Your task to perform on an android device: show emergency info Image 0: 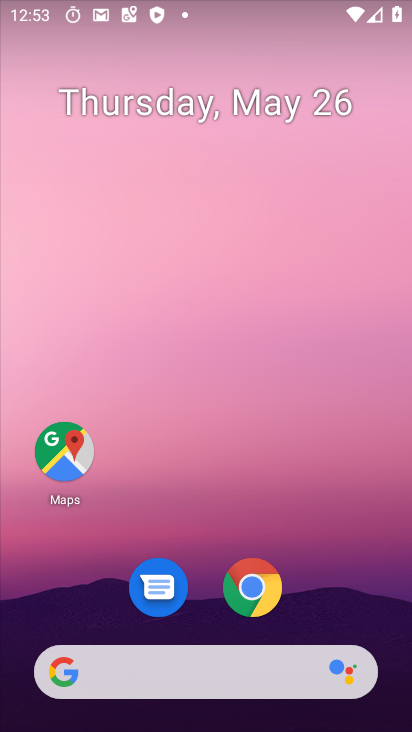
Step 0: drag from (273, 672) to (221, 188)
Your task to perform on an android device: show emergency info Image 1: 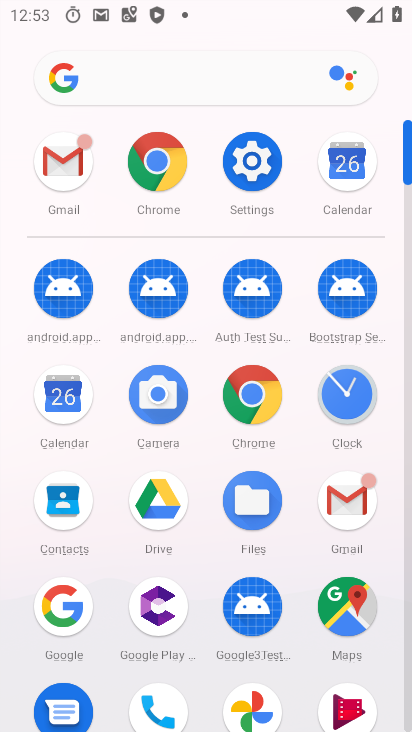
Step 1: click (249, 162)
Your task to perform on an android device: show emergency info Image 2: 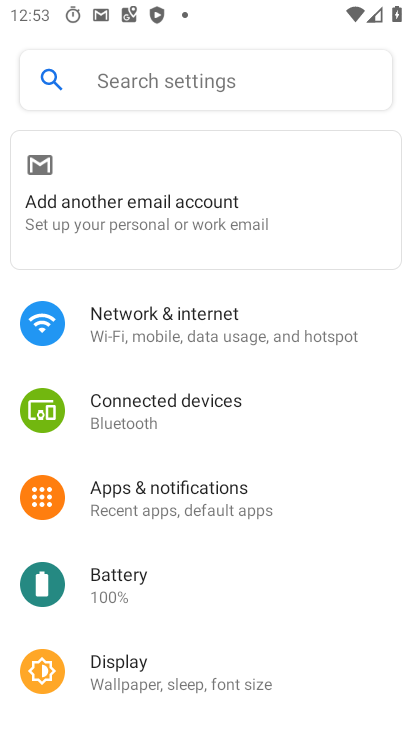
Step 2: click (182, 81)
Your task to perform on an android device: show emergency info Image 3: 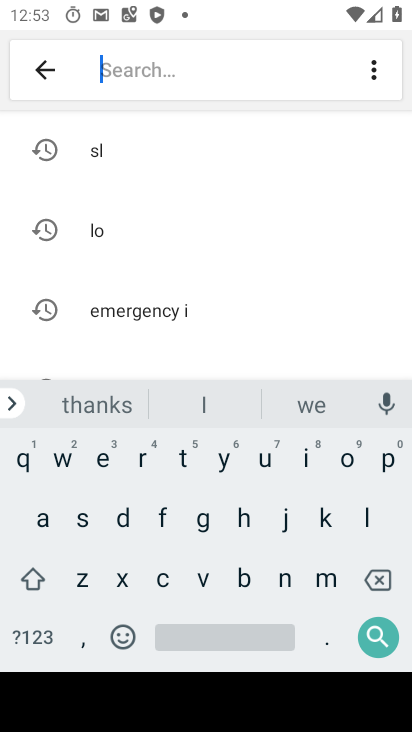
Step 3: click (104, 462)
Your task to perform on an android device: show emergency info Image 4: 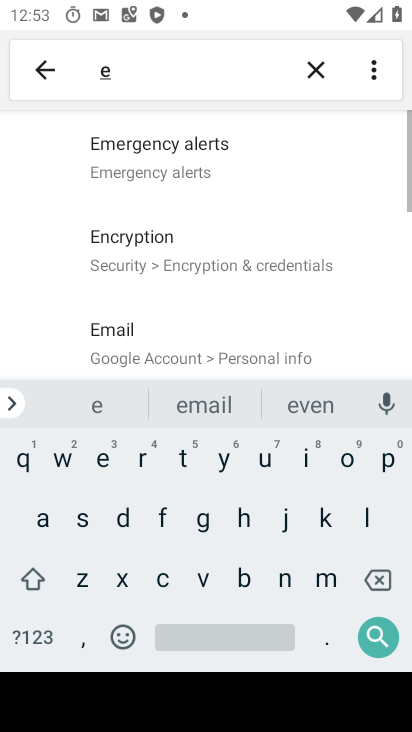
Step 4: click (319, 575)
Your task to perform on an android device: show emergency info Image 5: 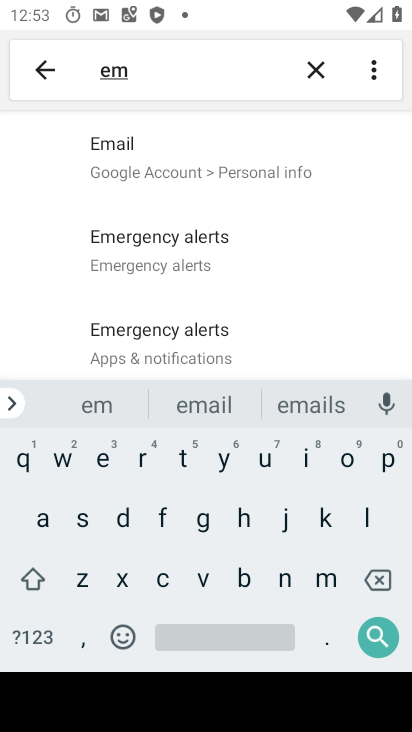
Step 5: click (98, 462)
Your task to perform on an android device: show emergency info Image 6: 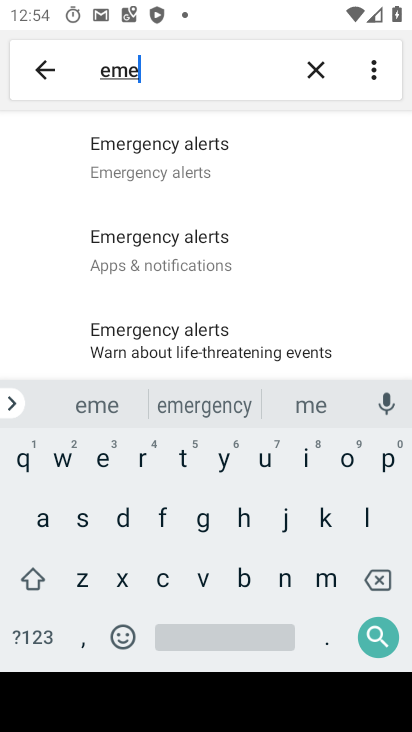
Step 6: click (177, 403)
Your task to perform on an android device: show emergency info Image 7: 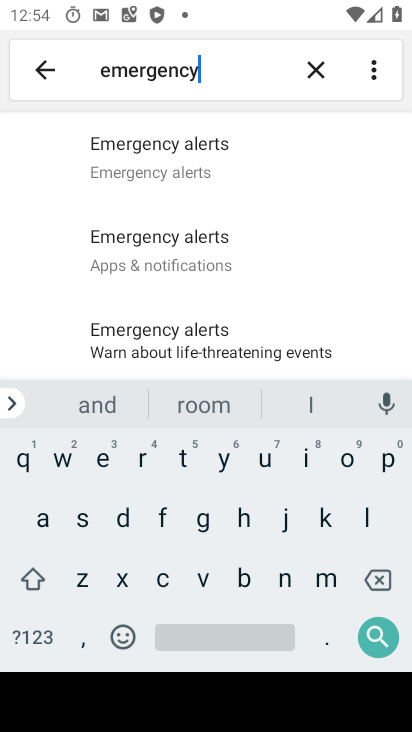
Step 7: click (306, 462)
Your task to perform on an android device: show emergency info Image 8: 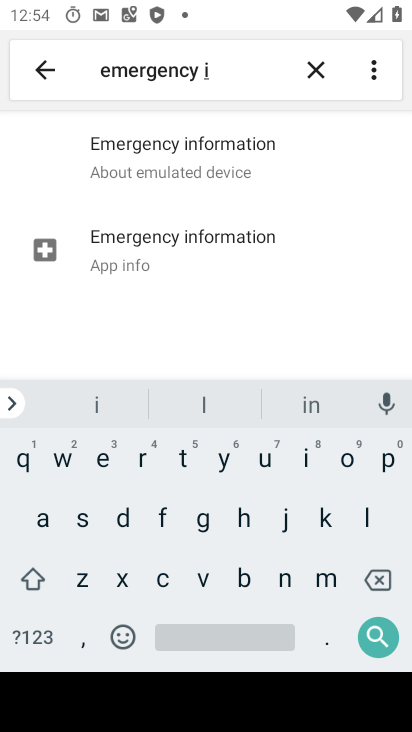
Step 8: click (227, 170)
Your task to perform on an android device: show emergency info Image 9: 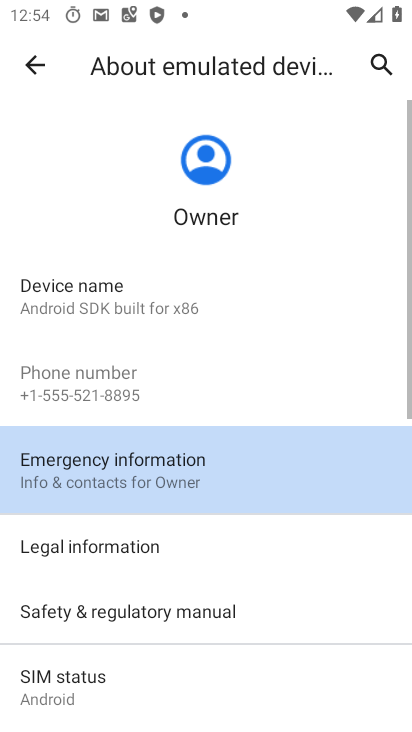
Step 9: click (172, 451)
Your task to perform on an android device: show emergency info Image 10: 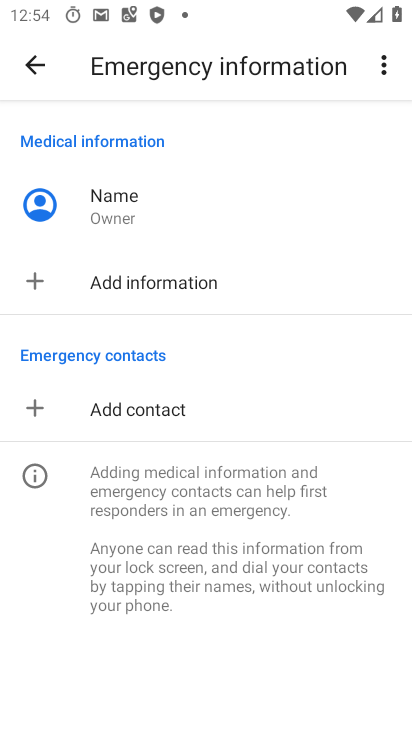
Step 10: task complete